Your task to perform on an android device: change your default location settings in chrome Image 0: 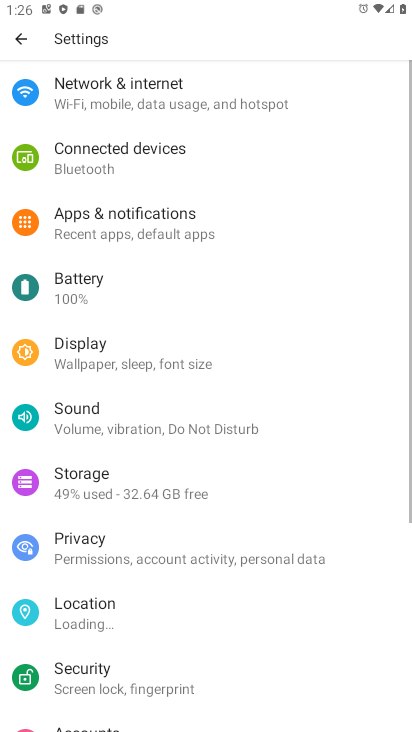
Step 0: press home button
Your task to perform on an android device: change your default location settings in chrome Image 1: 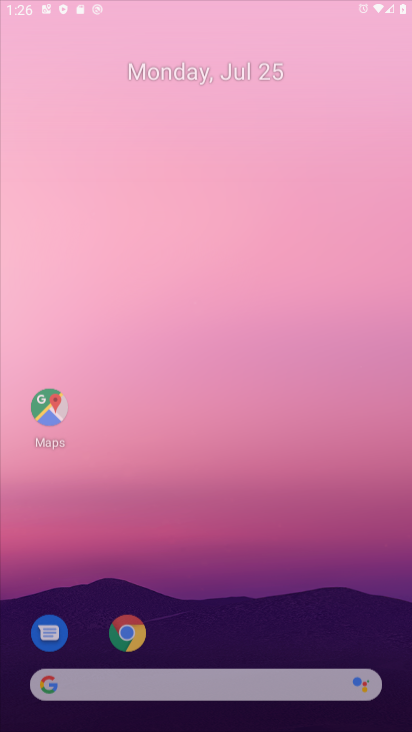
Step 1: drag from (400, 697) to (102, 19)
Your task to perform on an android device: change your default location settings in chrome Image 2: 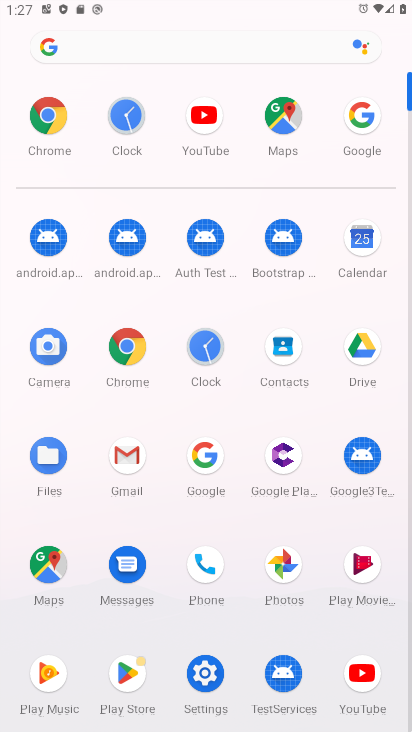
Step 2: click (129, 331)
Your task to perform on an android device: change your default location settings in chrome Image 3: 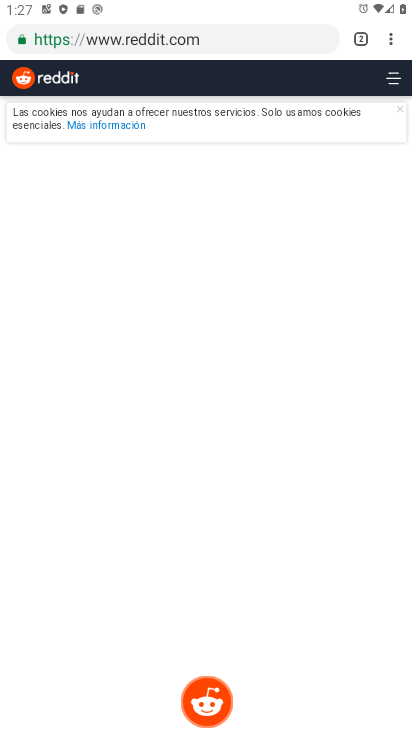
Step 3: click (384, 30)
Your task to perform on an android device: change your default location settings in chrome Image 4: 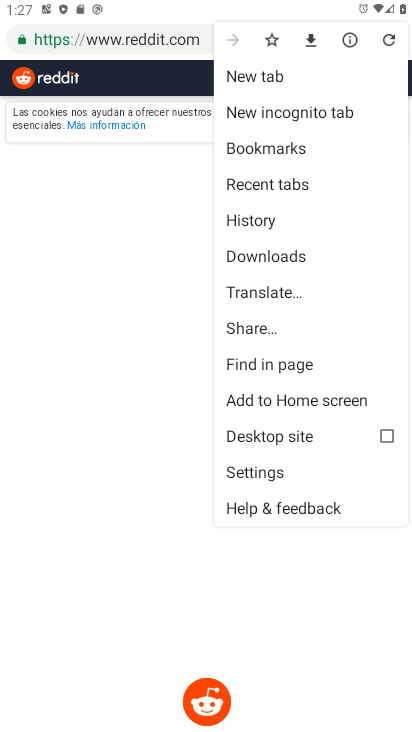
Step 4: click (261, 471)
Your task to perform on an android device: change your default location settings in chrome Image 5: 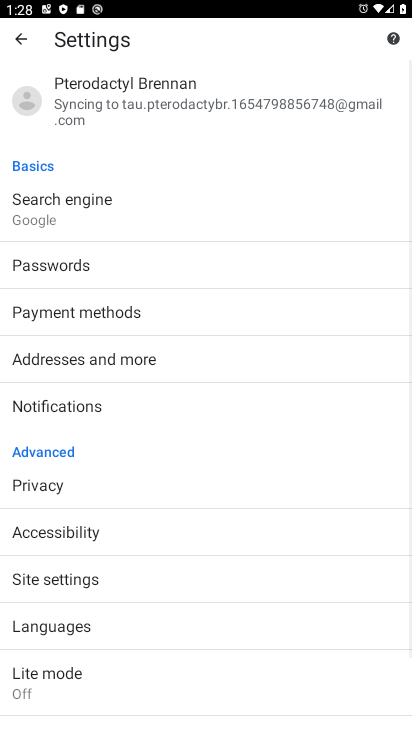
Step 5: click (68, 204)
Your task to perform on an android device: change your default location settings in chrome Image 6: 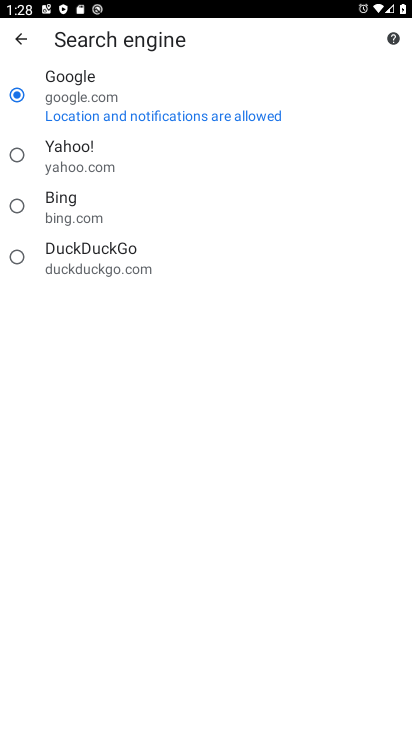
Step 6: click (88, 200)
Your task to perform on an android device: change your default location settings in chrome Image 7: 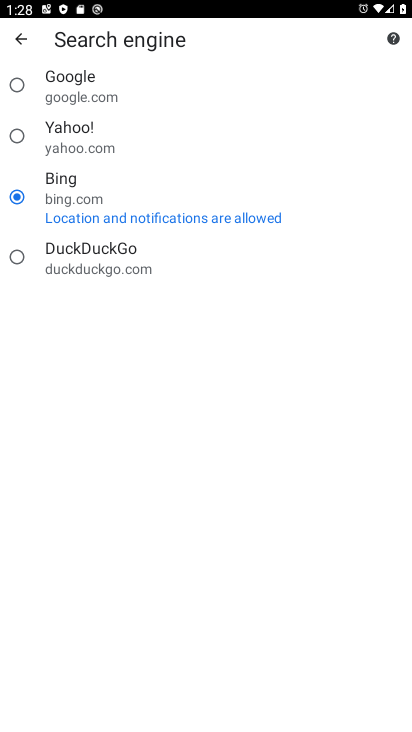
Step 7: task complete